Your task to perform on an android device: turn vacation reply on in the gmail app Image 0: 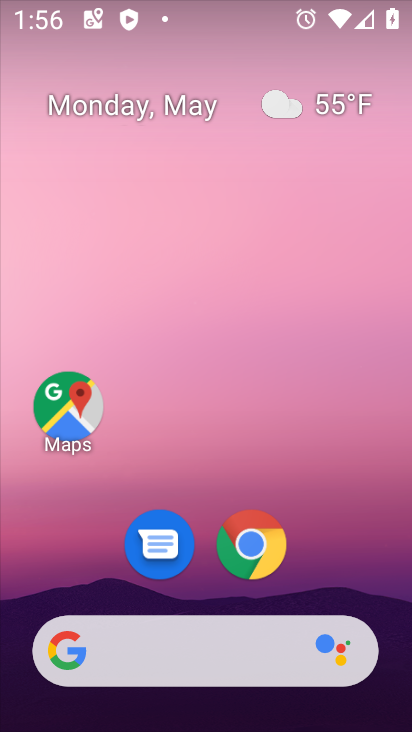
Step 0: drag from (395, 639) to (346, 122)
Your task to perform on an android device: turn vacation reply on in the gmail app Image 1: 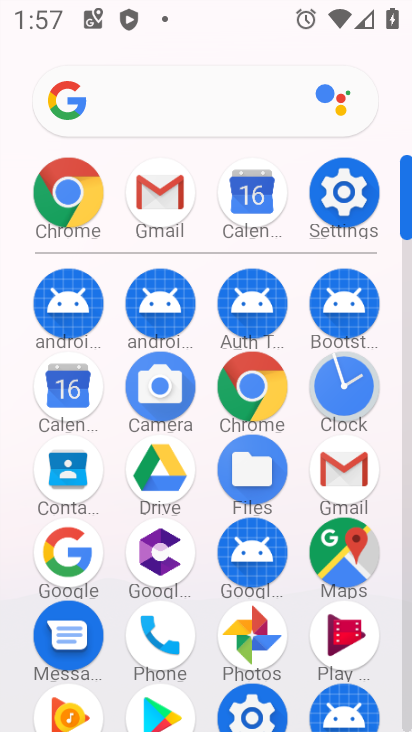
Step 1: click (349, 469)
Your task to perform on an android device: turn vacation reply on in the gmail app Image 2: 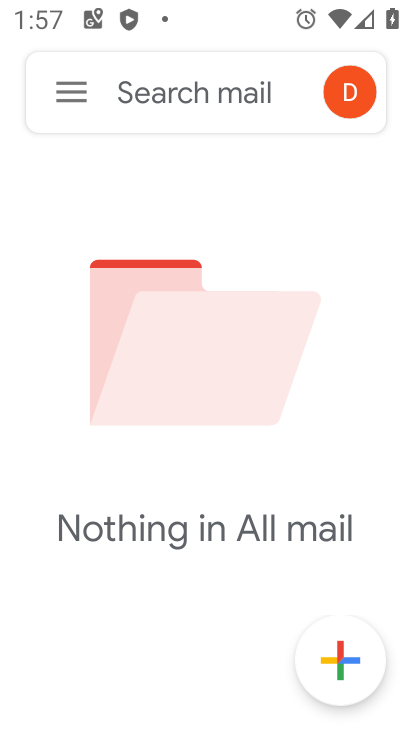
Step 2: click (75, 84)
Your task to perform on an android device: turn vacation reply on in the gmail app Image 3: 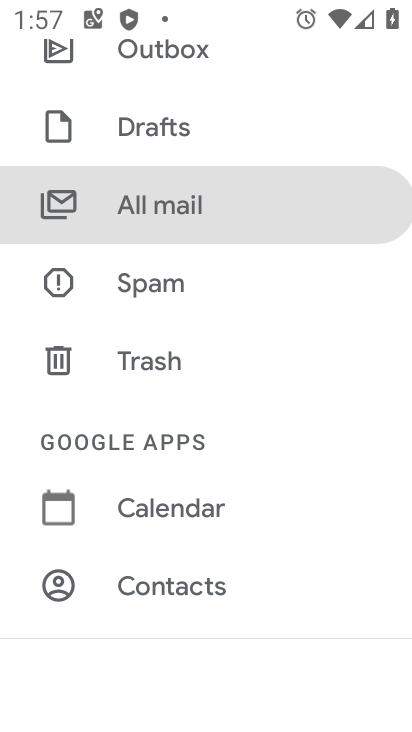
Step 3: drag from (296, 616) to (268, 258)
Your task to perform on an android device: turn vacation reply on in the gmail app Image 4: 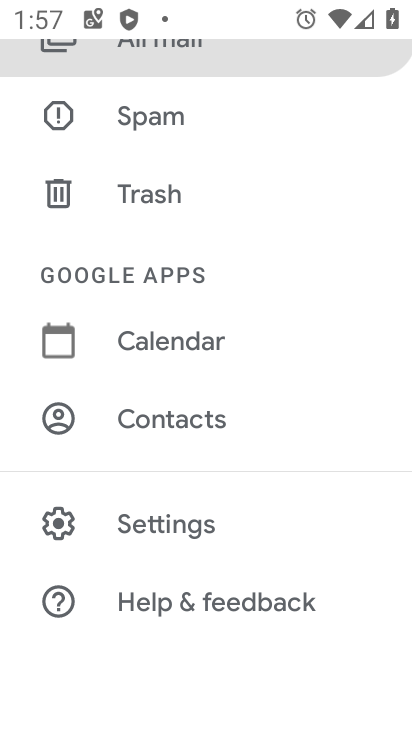
Step 4: click (185, 520)
Your task to perform on an android device: turn vacation reply on in the gmail app Image 5: 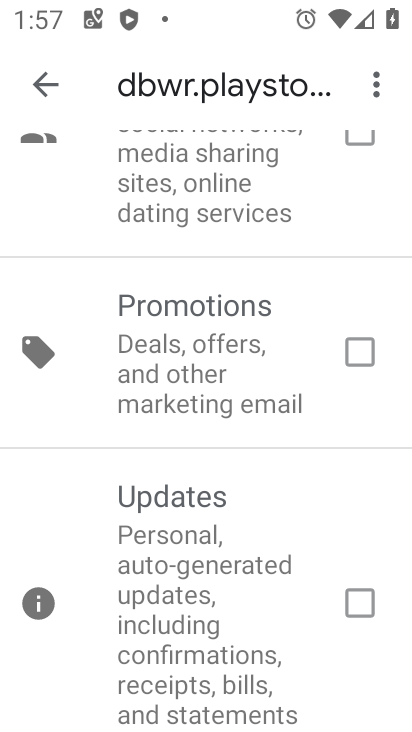
Step 5: drag from (270, 262) to (232, 346)
Your task to perform on an android device: turn vacation reply on in the gmail app Image 6: 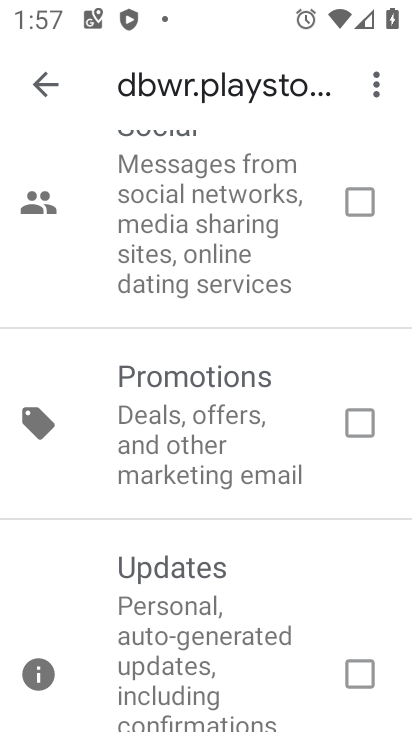
Step 6: press back button
Your task to perform on an android device: turn vacation reply on in the gmail app Image 7: 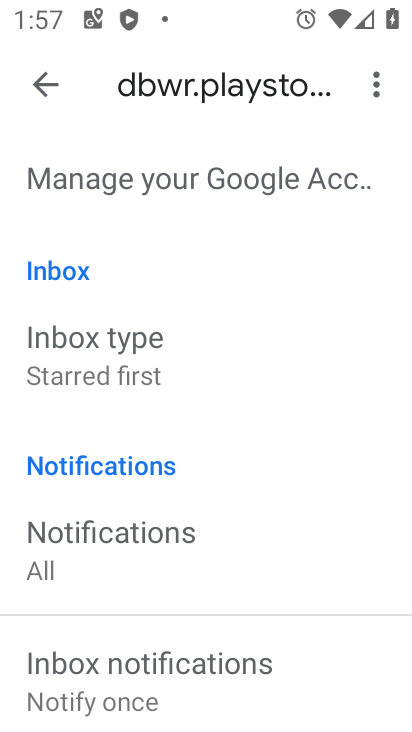
Step 7: drag from (314, 585) to (269, 133)
Your task to perform on an android device: turn vacation reply on in the gmail app Image 8: 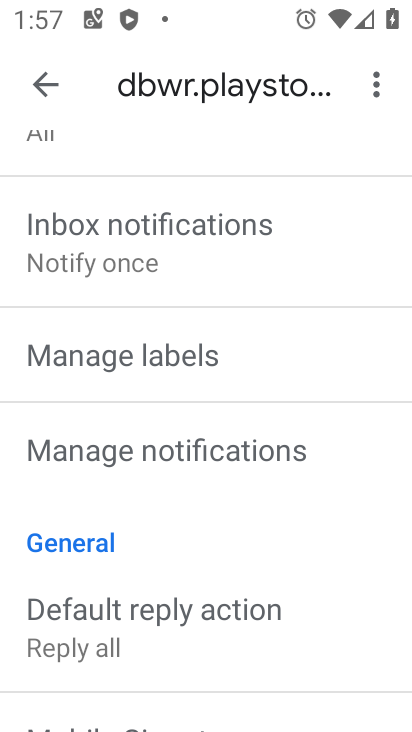
Step 8: drag from (304, 597) to (287, 181)
Your task to perform on an android device: turn vacation reply on in the gmail app Image 9: 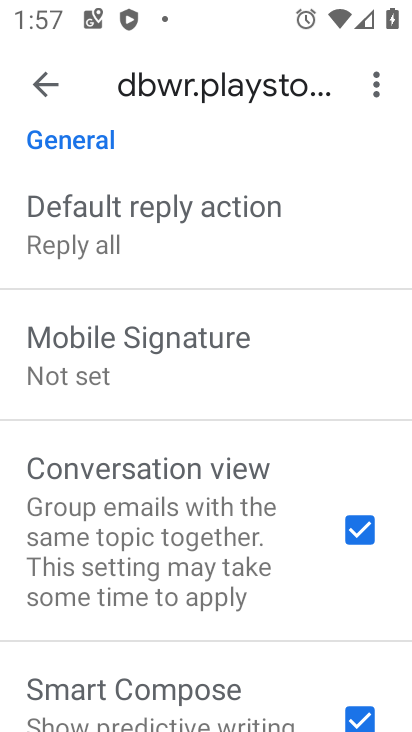
Step 9: drag from (313, 642) to (282, 266)
Your task to perform on an android device: turn vacation reply on in the gmail app Image 10: 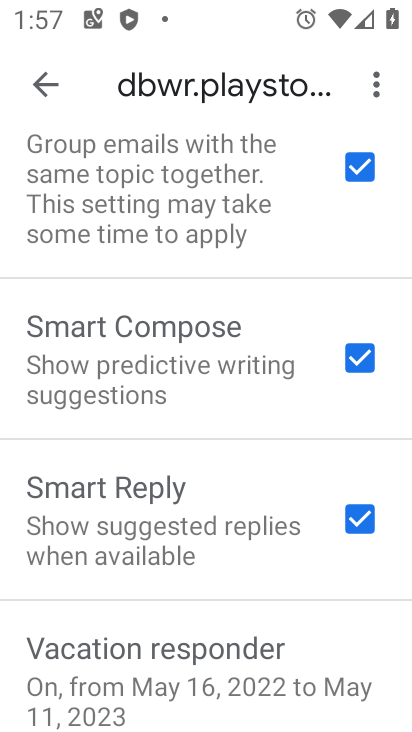
Step 10: drag from (275, 649) to (298, 392)
Your task to perform on an android device: turn vacation reply on in the gmail app Image 11: 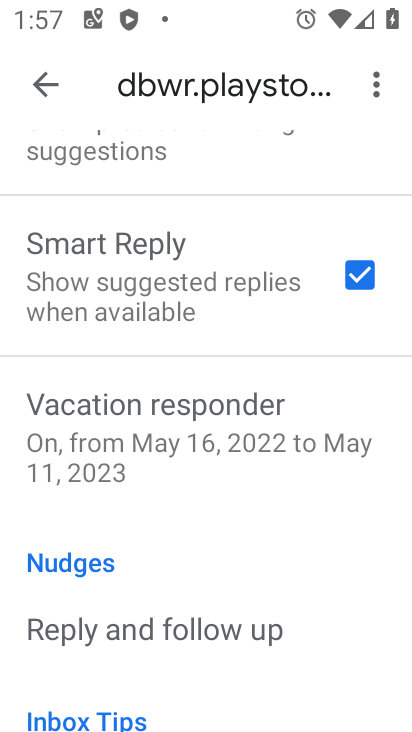
Step 11: click (140, 432)
Your task to perform on an android device: turn vacation reply on in the gmail app Image 12: 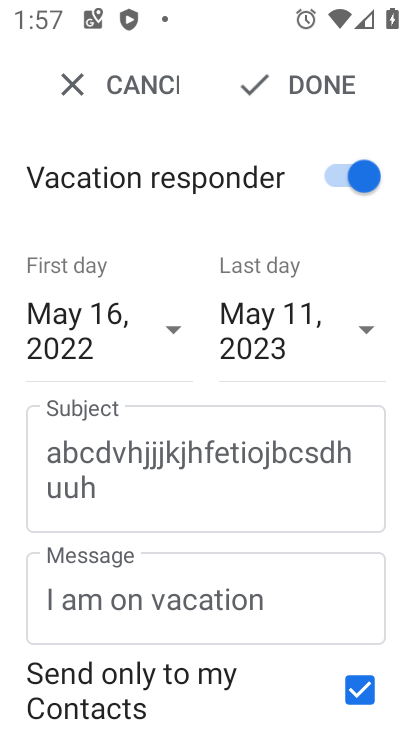
Step 12: task complete